Your task to perform on an android device: move an email to a new category in the gmail app Image 0: 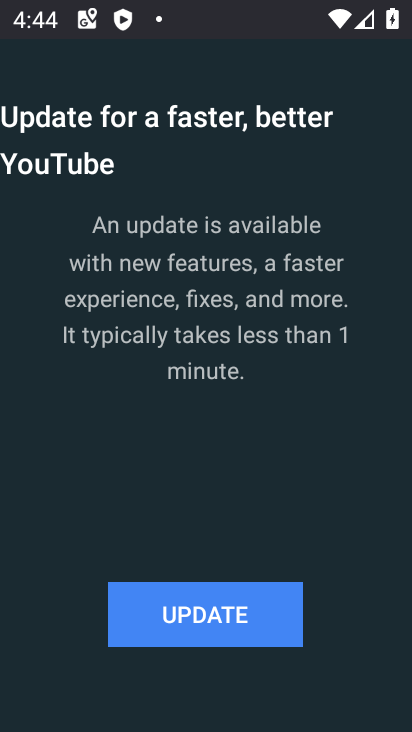
Step 0: drag from (370, 567) to (285, 138)
Your task to perform on an android device: move an email to a new category in the gmail app Image 1: 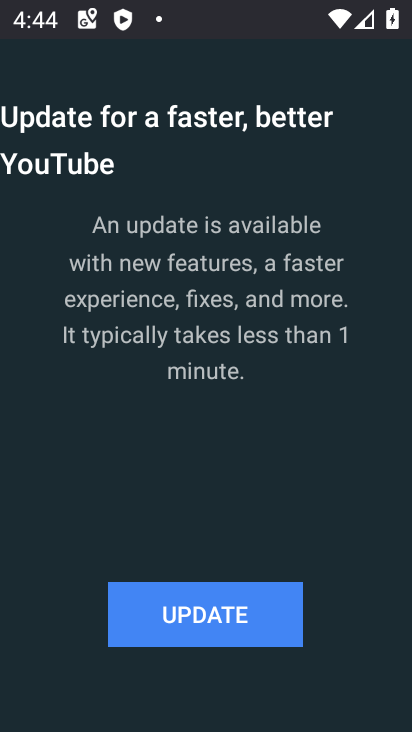
Step 1: press back button
Your task to perform on an android device: move an email to a new category in the gmail app Image 2: 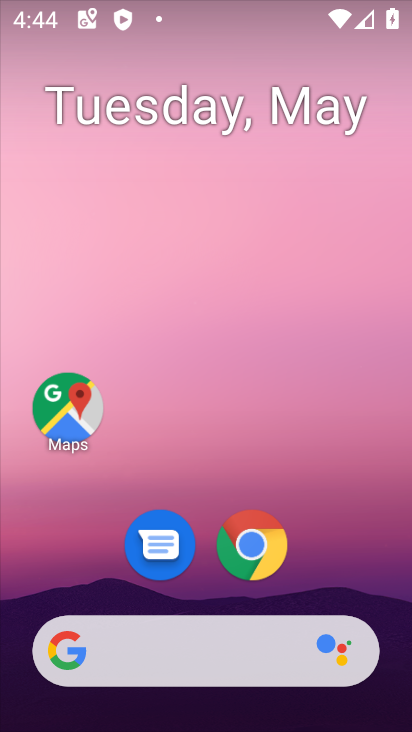
Step 2: drag from (330, 541) to (264, 19)
Your task to perform on an android device: move an email to a new category in the gmail app Image 3: 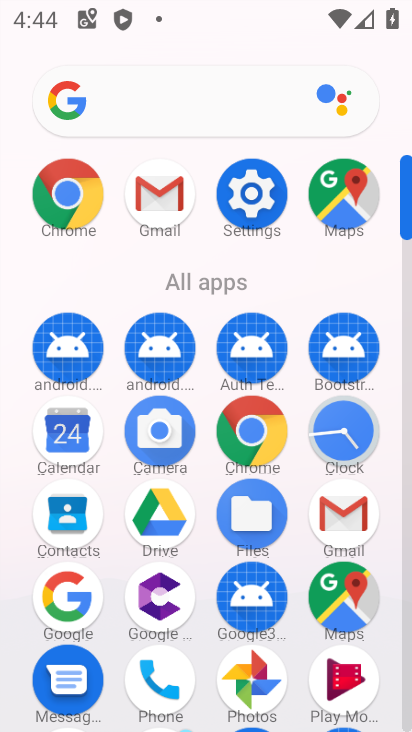
Step 3: click (158, 189)
Your task to perform on an android device: move an email to a new category in the gmail app Image 4: 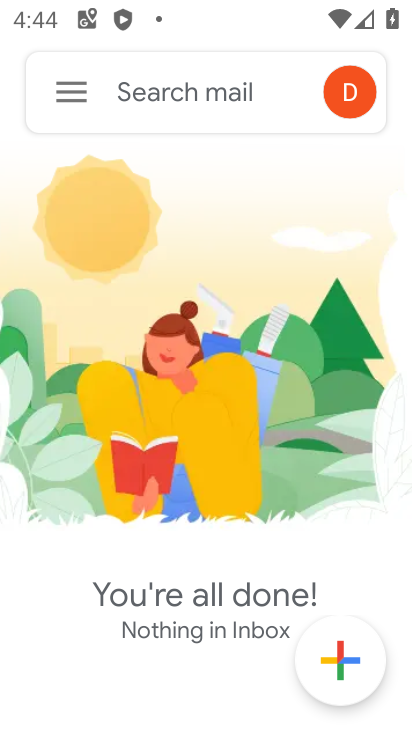
Step 4: click (66, 87)
Your task to perform on an android device: move an email to a new category in the gmail app Image 5: 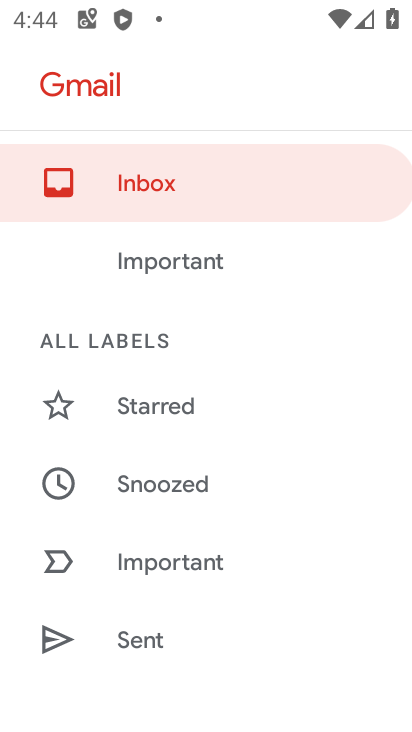
Step 5: drag from (219, 647) to (252, 131)
Your task to perform on an android device: move an email to a new category in the gmail app Image 6: 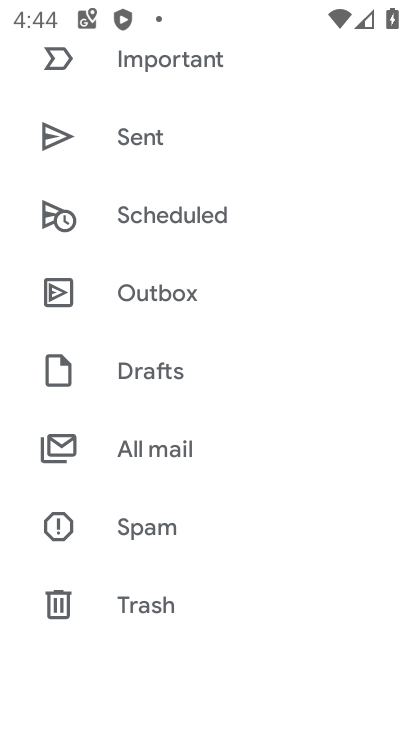
Step 6: click (173, 453)
Your task to perform on an android device: move an email to a new category in the gmail app Image 7: 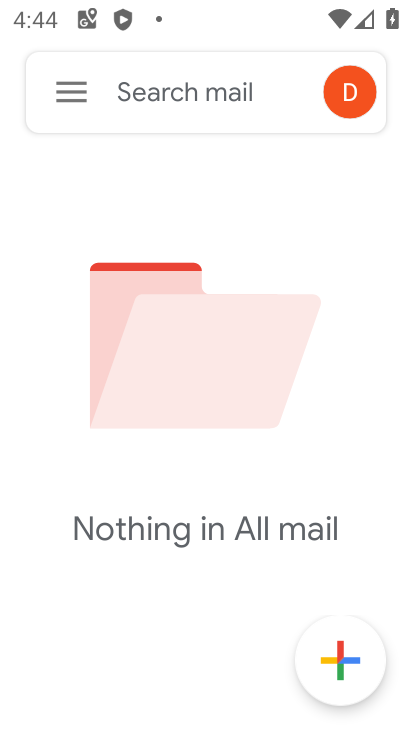
Step 7: click (65, 98)
Your task to perform on an android device: move an email to a new category in the gmail app Image 8: 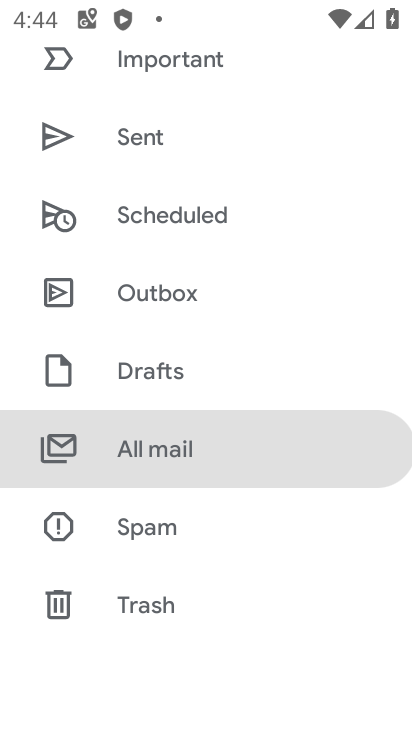
Step 8: drag from (259, 143) to (271, 622)
Your task to perform on an android device: move an email to a new category in the gmail app Image 9: 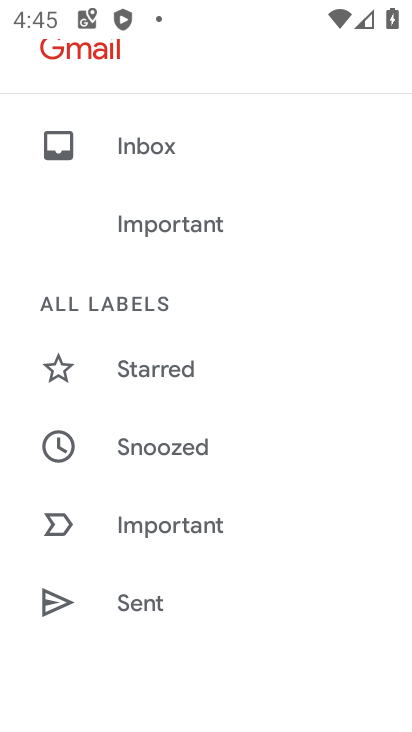
Step 9: click (190, 143)
Your task to perform on an android device: move an email to a new category in the gmail app Image 10: 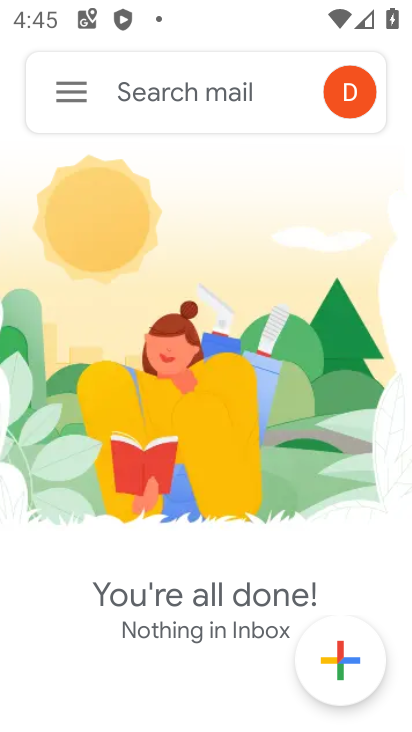
Step 10: click (80, 87)
Your task to perform on an android device: move an email to a new category in the gmail app Image 11: 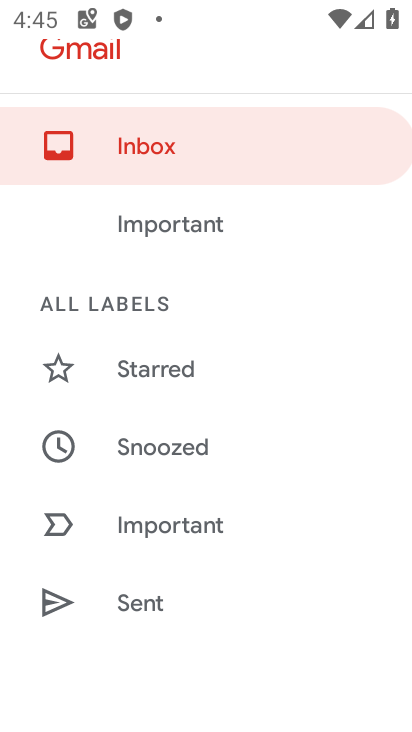
Step 11: drag from (225, 559) to (281, 117)
Your task to perform on an android device: move an email to a new category in the gmail app Image 12: 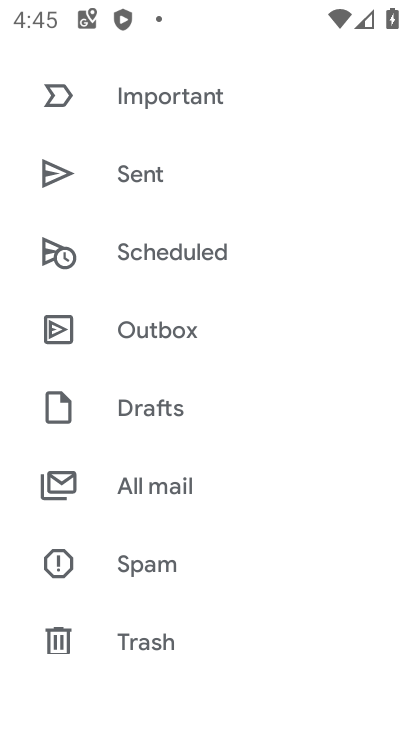
Step 12: drag from (289, 597) to (258, 418)
Your task to perform on an android device: move an email to a new category in the gmail app Image 13: 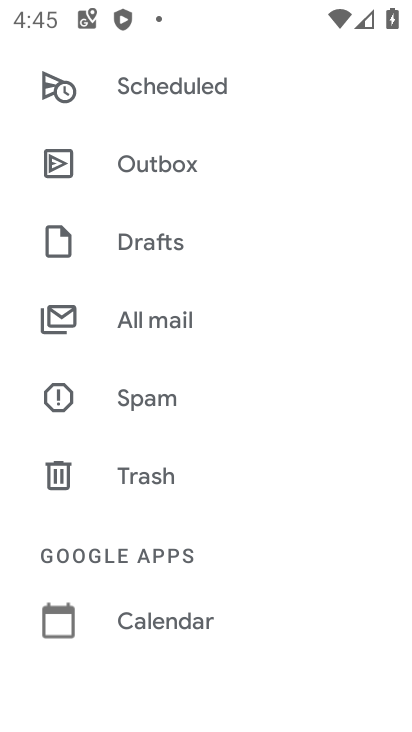
Step 13: click (194, 310)
Your task to perform on an android device: move an email to a new category in the gmail app Image 14: 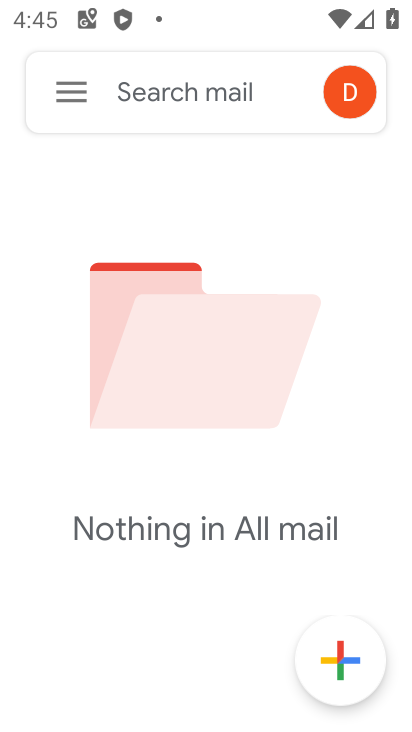
Step 14: task complete